Your task to perform on an android device: What's on my calendar tomorrow? Image 0: 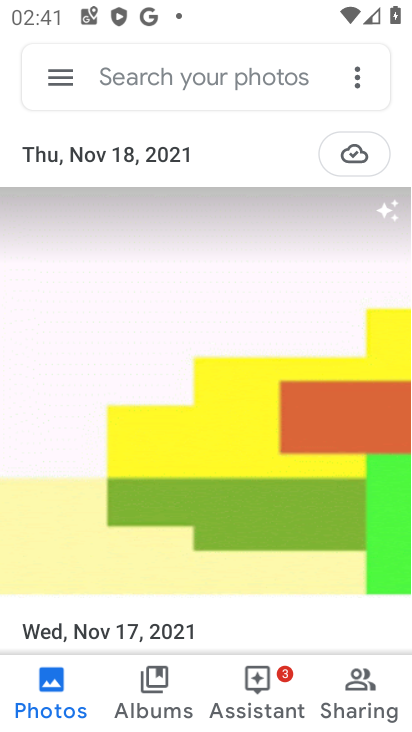
Step 0: press home button
Your task to perform on an android device: What's on my calendar tomorrow? Image 1: 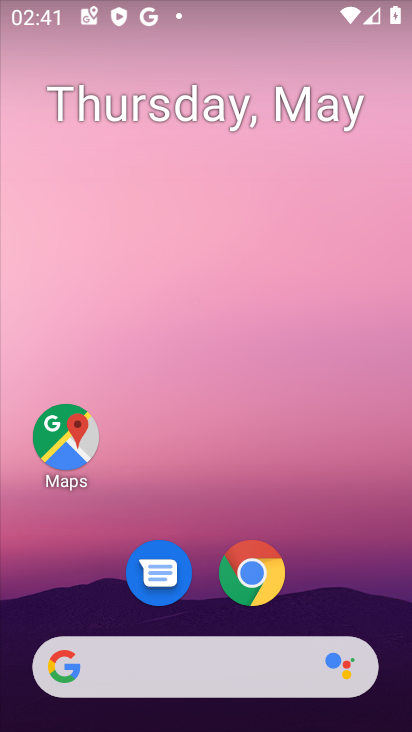
Step 1: drag from (323, 578) to (317, 327)
Your task to perform on an android device: What's on my calendar tomorrow? Image 2: 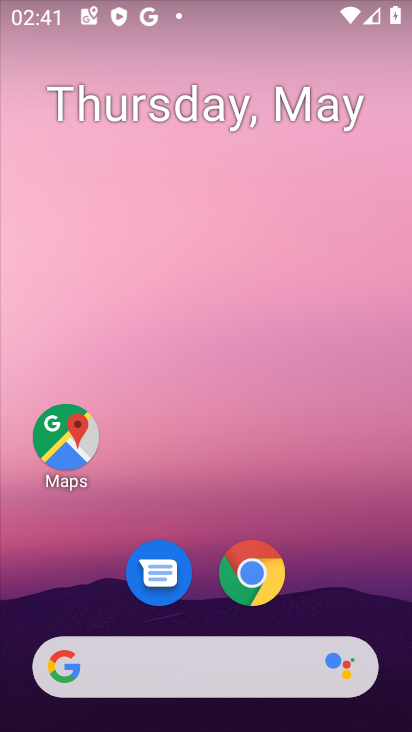
Step 2: drag from (307, 494) to (348, 170)
Your task to perform on an android device: What's on my calendar tomorrow? Image 3: 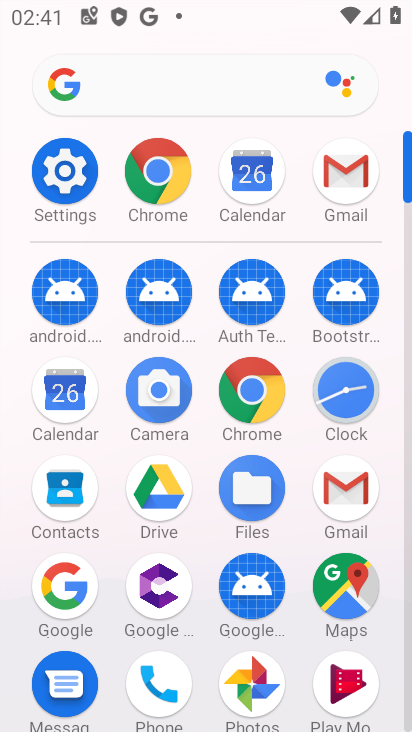
Step 3: click (60, 389)
Your task to perform on an android device: What's on my calendar tomorrow? Image 4: 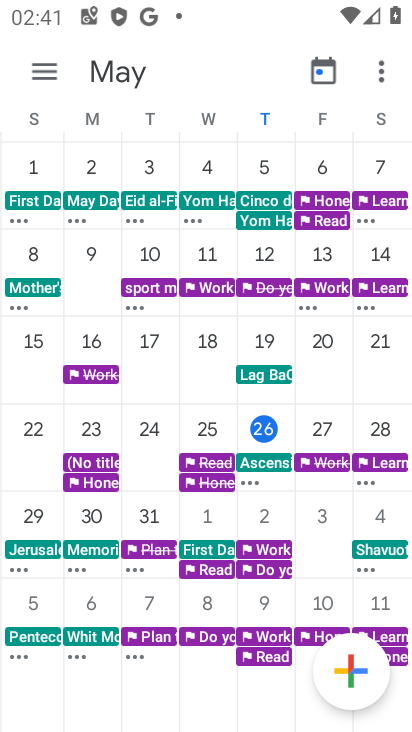
Step 4: click (315, 423)
Your task to perform on an android device: What's on my calendar tomorrow? Image 5: 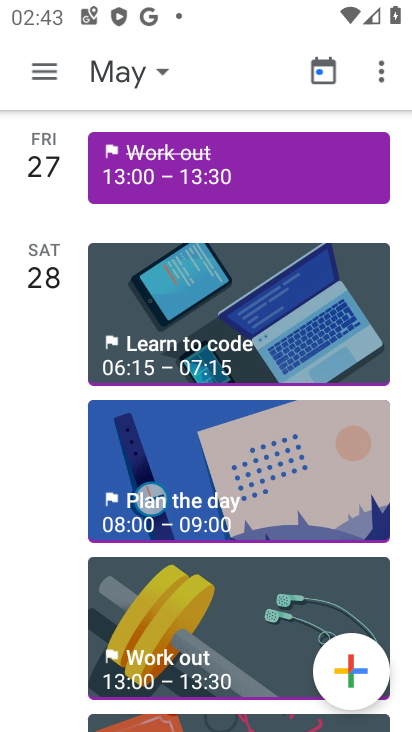
Step 5: task complete